Your task to perform on an android device: toggle data saver in the chrome app Image 0: 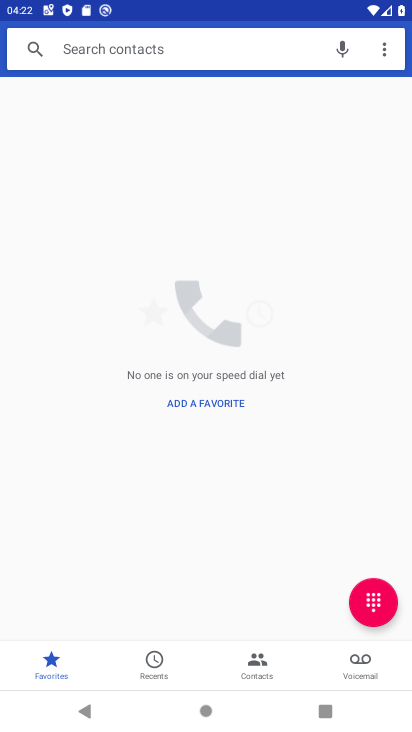
Step 0: press home button
Your task to perform on an android device: toggle data saver in the chrome app Image 1: 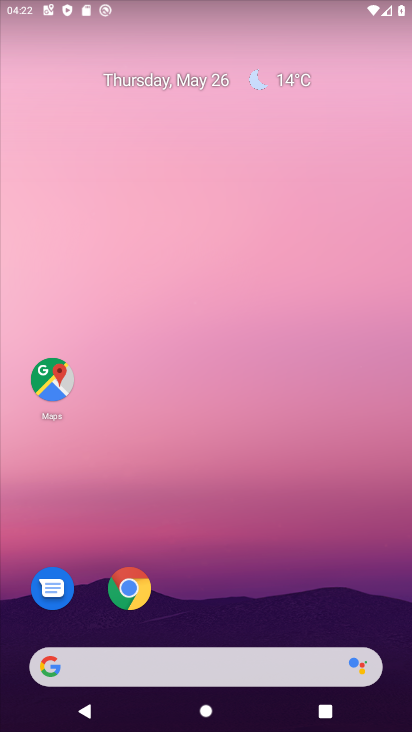
Step 1: drag from (223, 609) to (238, 152)
Your task to perform on an android device: toggle data saver in the chrome app Image 2: 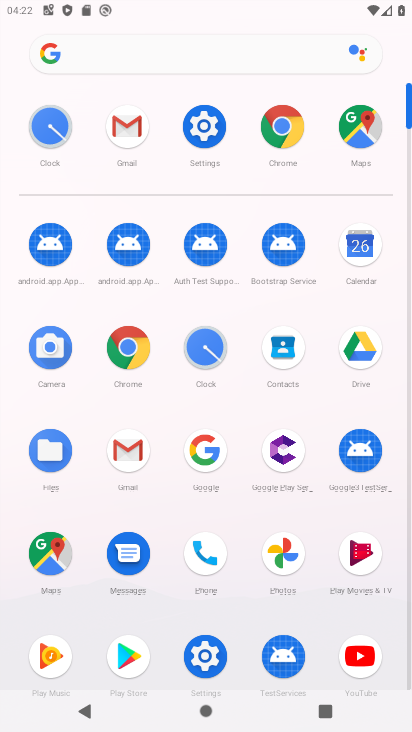
Step 2: click (274, 120)
Your task to perform on an android device: toggle data saver in the chrome app Image 3: 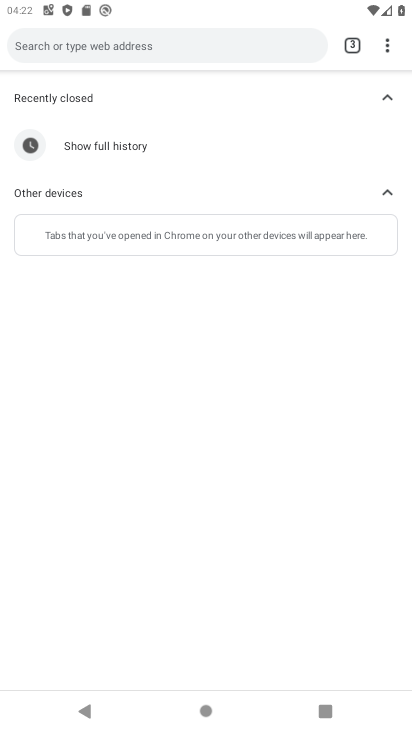
Step 3: click (381, 48)
Your task to perform on an android device: toggle data saver in the chrome app Image 4: 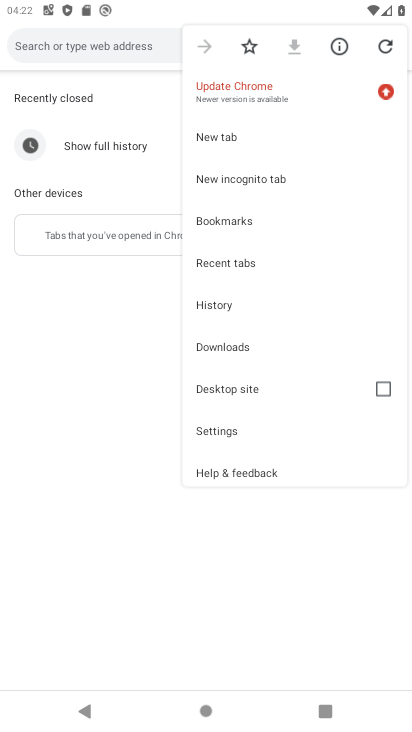
Step 4: click (227, 423)
Your task to perform on an android device: toggle data saver in the chrome app Image 5: 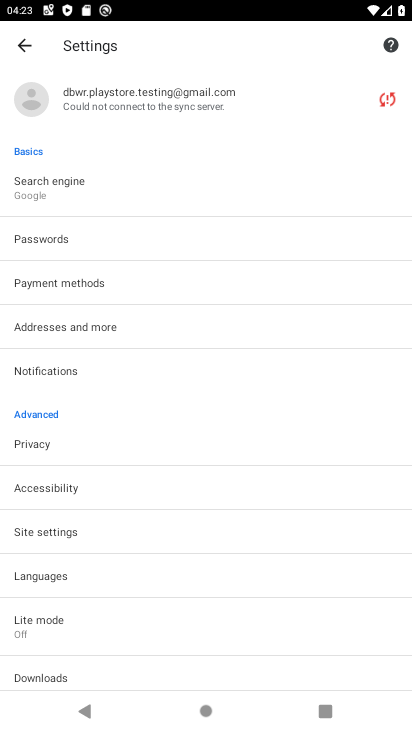
Step 5: click (102, 611)
Your task to perform on an android device: toggle data saver in the chrome app Image 6: 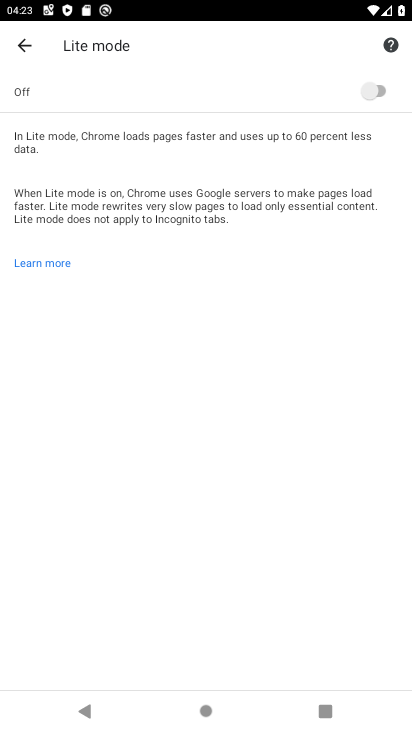
Step 6: click (369, 100)
Your task to perform on an android device: toggle data saver in the chrome app Image 7: 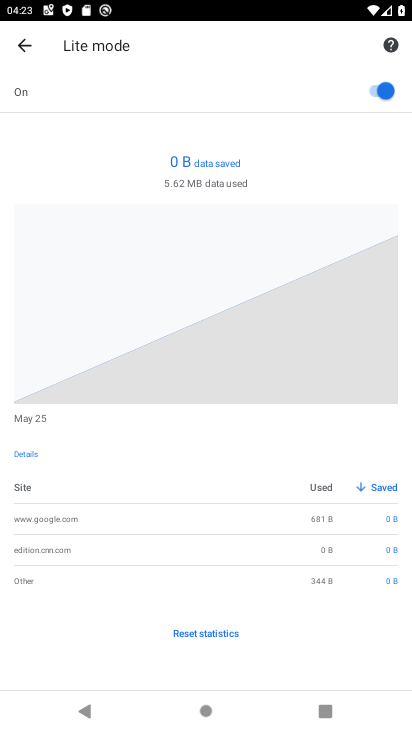
Step 7: task complete